Your task to perform on an android device: add a label to a message in the gmail app Image 0: 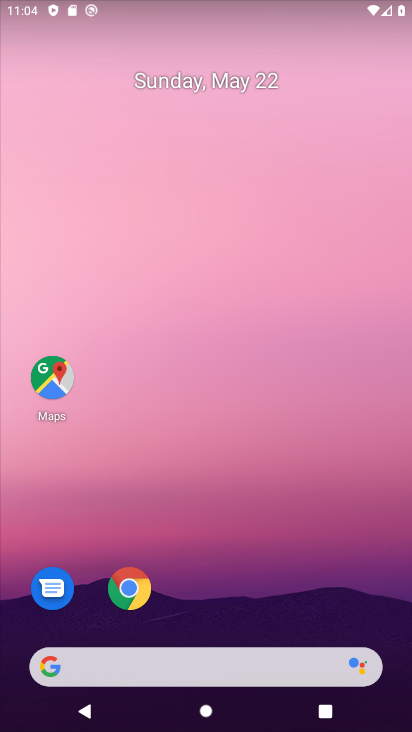
Step 0: drag from (229, 634) to (152, 60)
Your task to perform on an android device: add a label to a message in the gmail app Image 1: 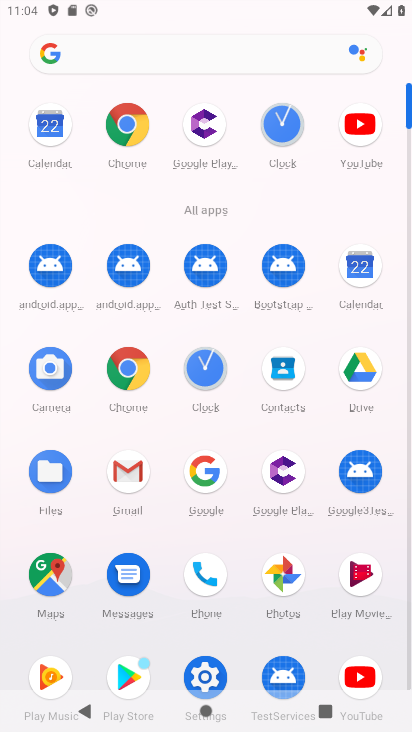
Step 1: click (114, 485)
Your task to perform on an android device: add a label to a message in the gmail app Image 2: 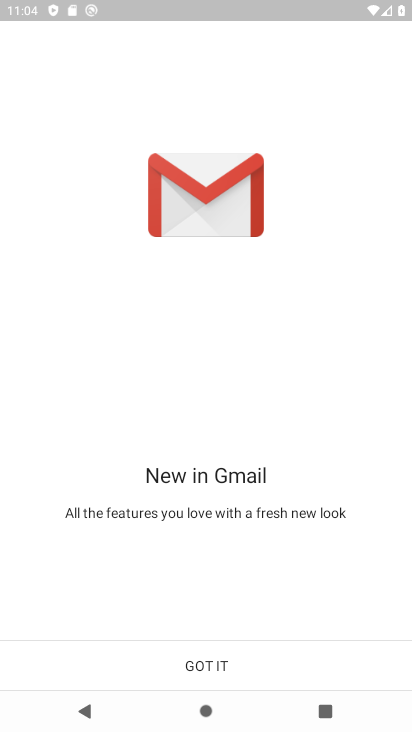
Step 2: click (199, 643)
Your task to perform on an android device: add a label to a message in the gmail app Image 3: 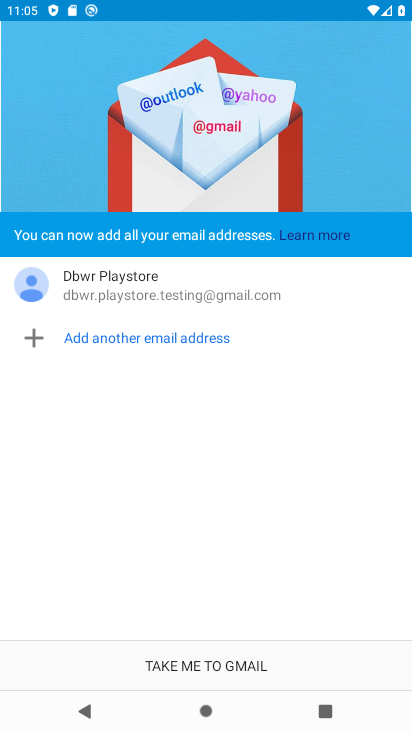
Step 3: click (305, 676)
Your task to perform on an android device: add a label to a message in the gmail app Image 4: 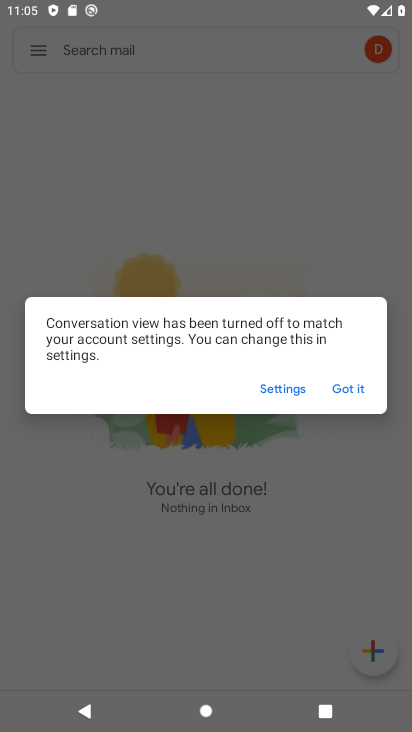
Step 4: click (332, 397)
Your task to perform on an android device: add a label to a message in the gmail app Image 5: 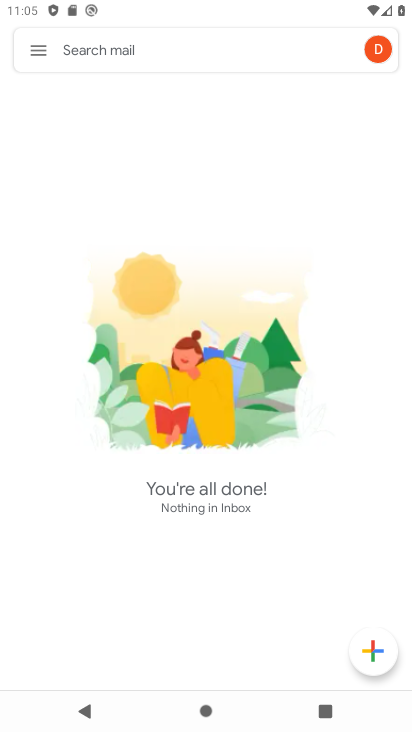
Step 5: task complete